Your task to perform on an android device: Open settings on Google Maps Image 0: 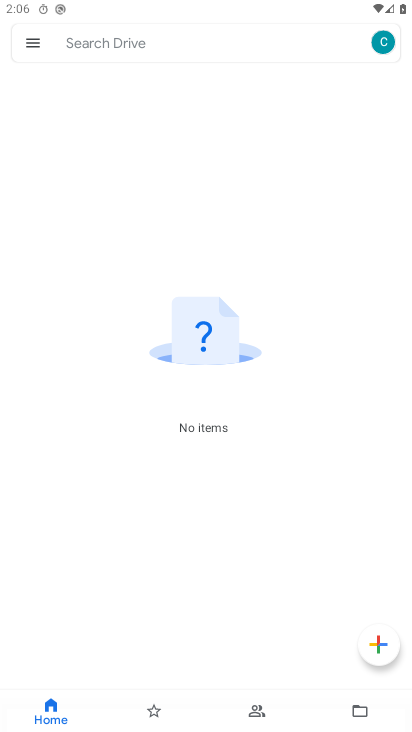
Step 0: press home button
Your task to perform on an android device: Open settings on Google Maps Image 1: 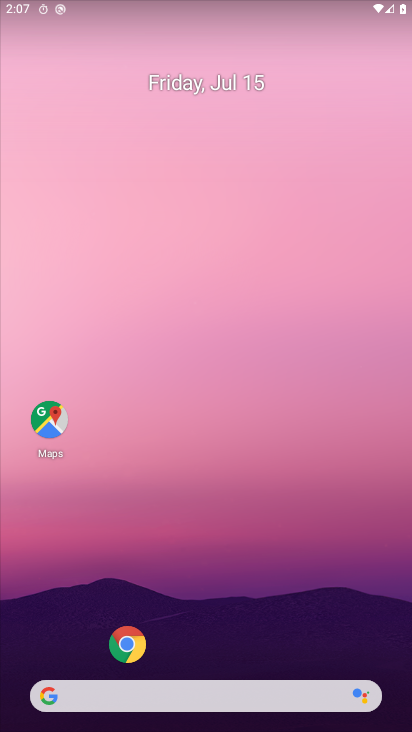
Step 1: click (43, 420)
Your task to perform on an android device: Open settings on Google Maps Image 2: 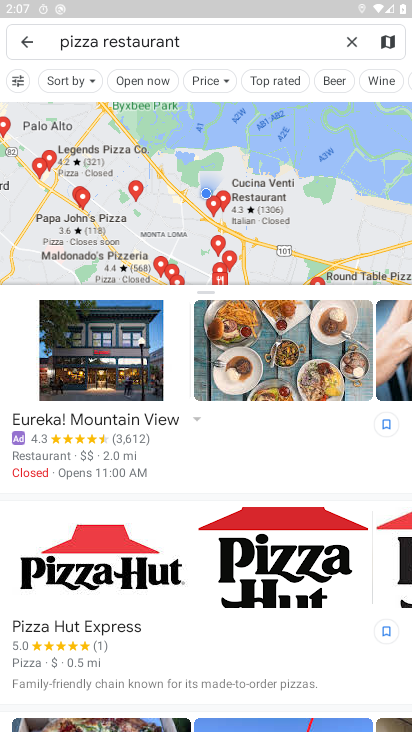
Step 2: click (22, 45)
Your task to perform on an android device: Open settings on Google Maps Image 3: 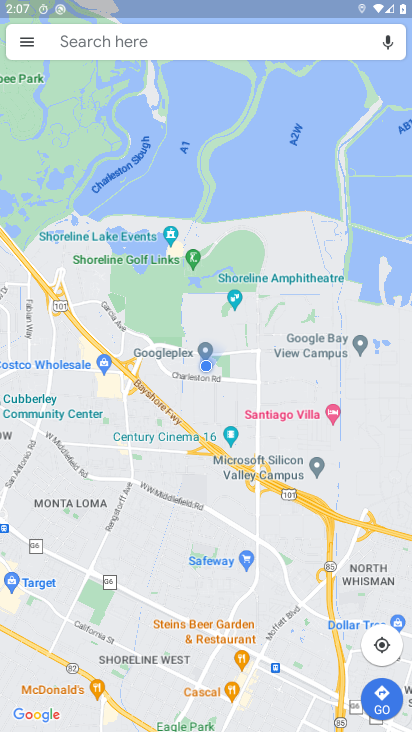
Step 3: task complete